Your task to perform on an android device: turn off translation in the chrome app Image 0: 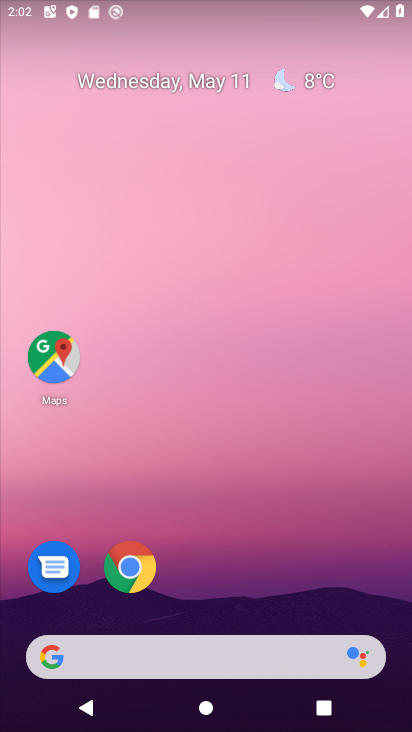
Step 0: click (111, 558)
Your task to perform on an android device: turn off translation in the chrome app Image 1: 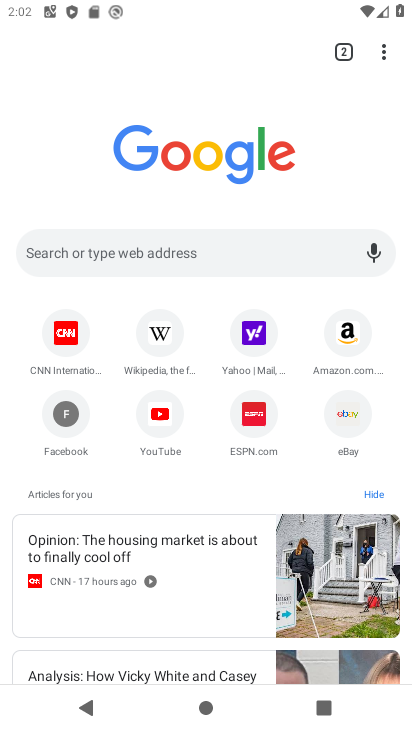
Step 1: click (380, 59)
Your task to perform on an android device: turn off translation in the chrome app Image 2: 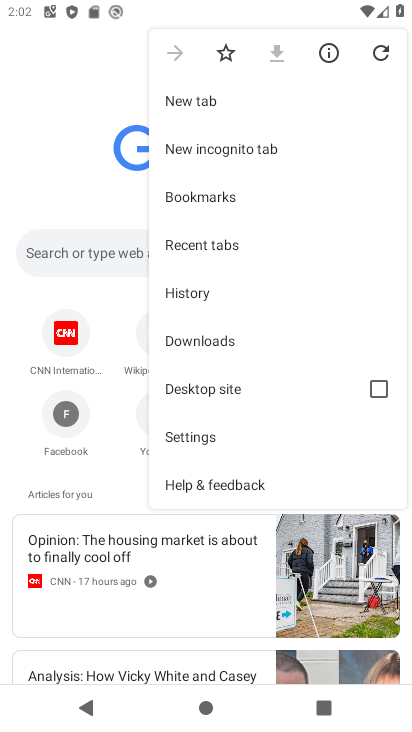
Step 2: click (212, 429)
Your task to perform on an android device: turn off translation in the chrome app Image 3: 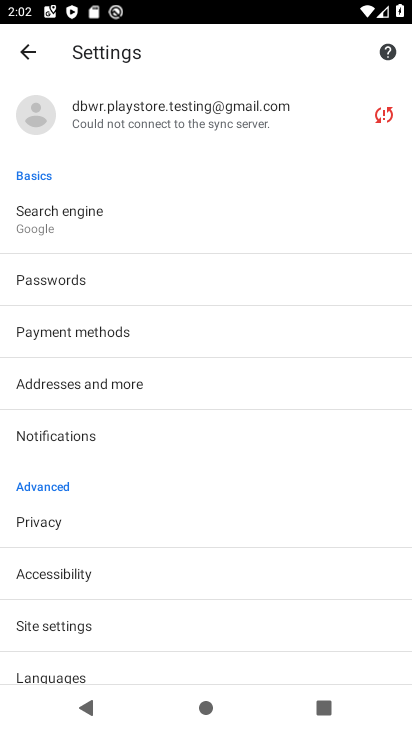
Step 3: drag from (204, 643) to (154, 534)
Your task to perform on an android device: turn off translation in the chrome app Image 4: 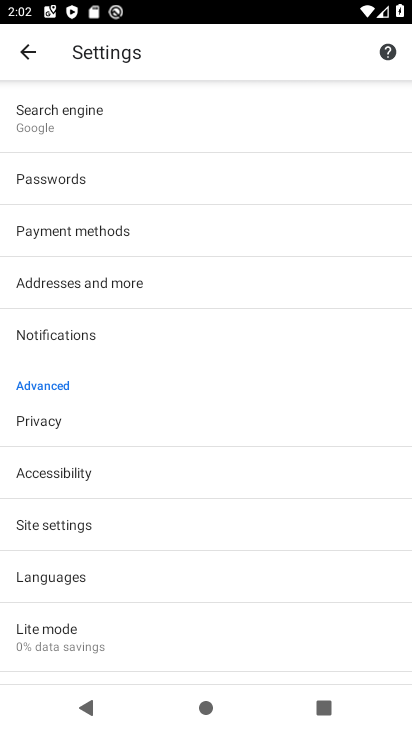
Step 4: click (81, 580)
Your task to perform on an android device: turn off translation in the chrome app Image 5: 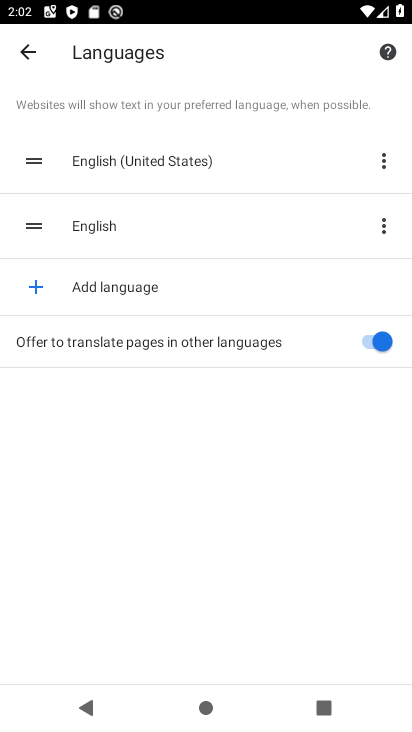
Step 5: click (379, 343)
Your task to perform on an android device: turn off translation in the chrome app Image 6: 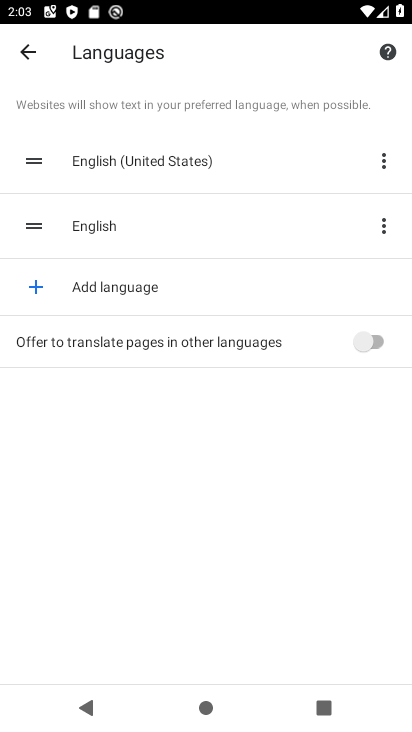
Step 6: task complete